Your task to perform on an android device: turn pop-ups on in chrome Image 0: 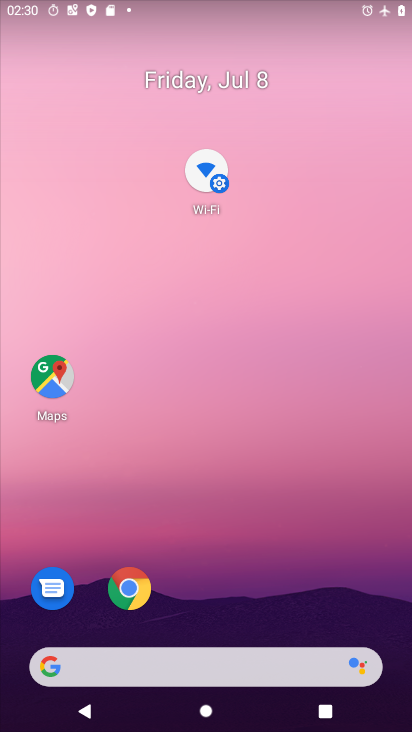
Step 0: drag from (176, 636) to (196, 86)
Your task to perform on an android device: turn pop-ups on in chrome Image 1: 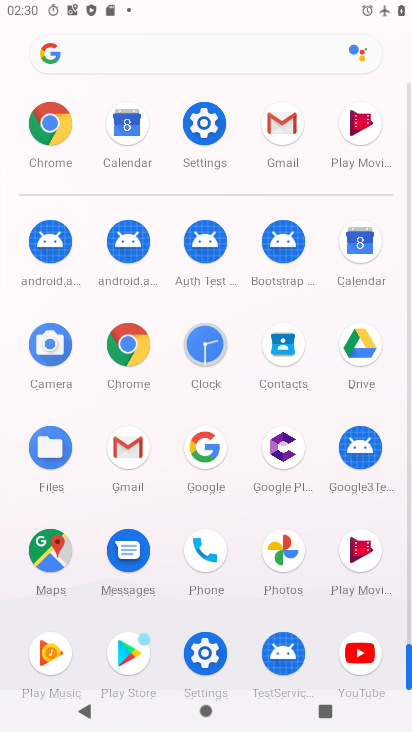
Step 1: click (137, 349)
Your task to perform on an android device: turn pop-ups on in chrome Image 2: 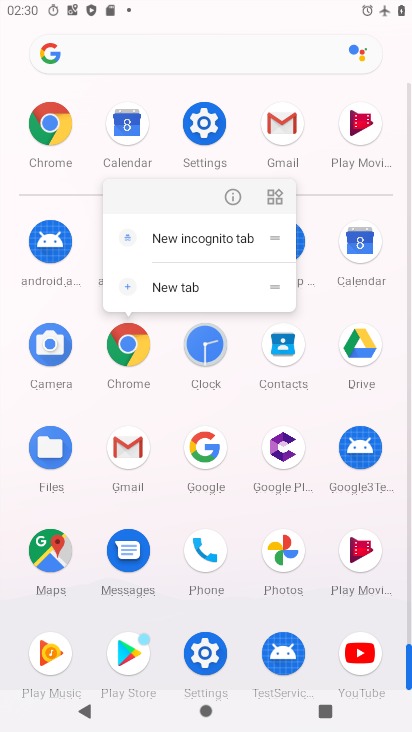
Step 2: click (240, 193)
Your task to perform on an android device: turn pop-ups on in chrome Image 3: 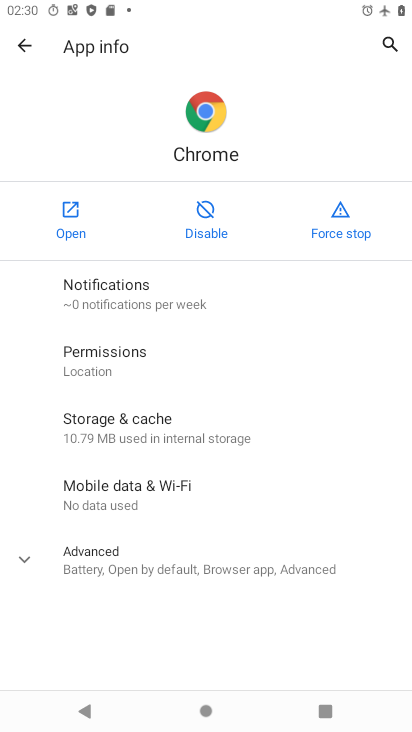
Step 3: click (79, 211)
Your task to perform on an android device: turn pop-ups on in chrome Image 4: 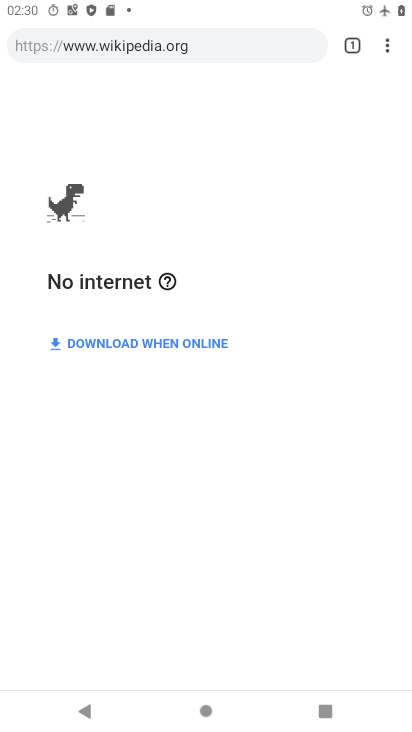
Step 4: drag from (243, 590) to (243, 312)
Your task to perform on an android device: turn pop-ups on in chrome Image 5: 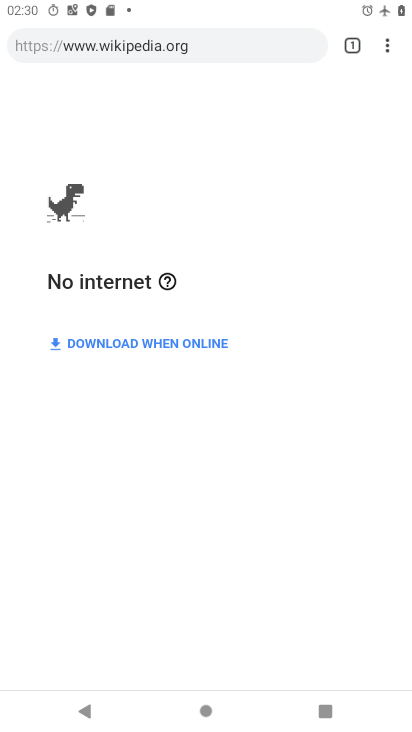
Step 5: click (384, 38)
Your task to perform on an android device: turn pop-ups on in chrome Image 6: 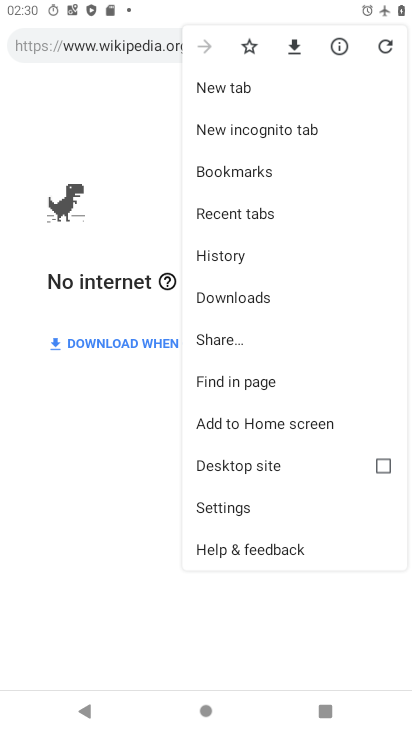
Step 6: click (227, 507)
Your task to perform on an android device: turn pop-ups on in chrome Image 7: 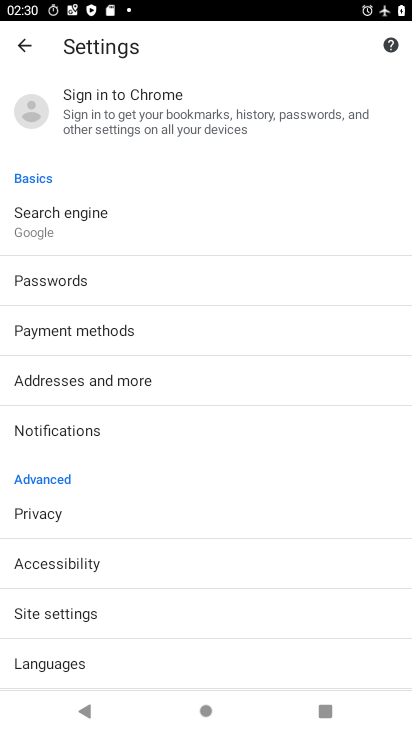
Step 7: click (78, 623)
Your task to perform on an android device: turn pop-ups on in chrome Image 8: 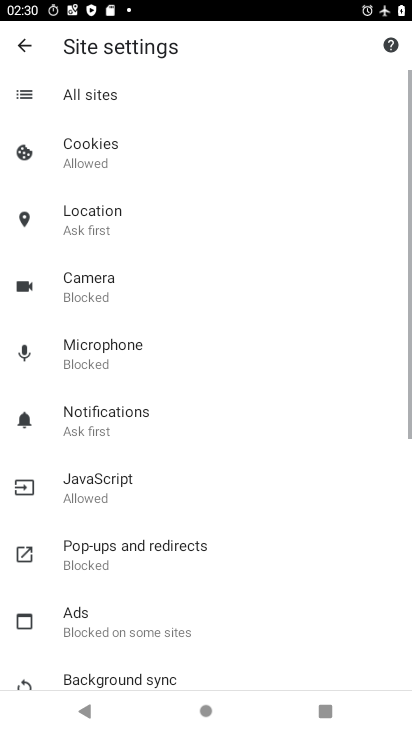
Step 8: drag from (80, 620) to (100, 399)
Your task to perform on an android device: turn pop-ups on in chrome Image 9: 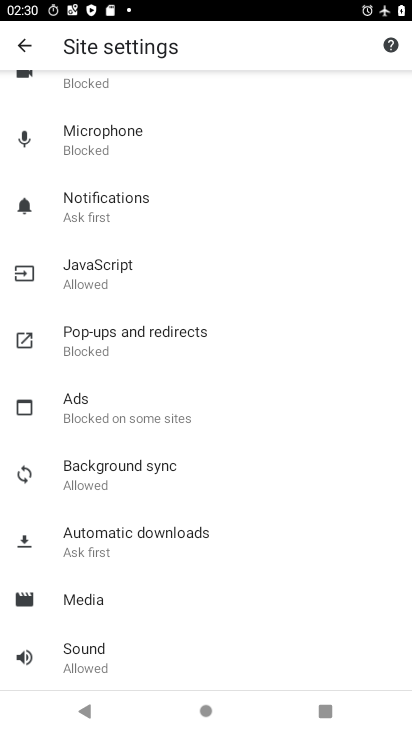
Step 9: click (177, 331)
Your task to perform on an android device: turn pop-ups on in chrome Image 10: 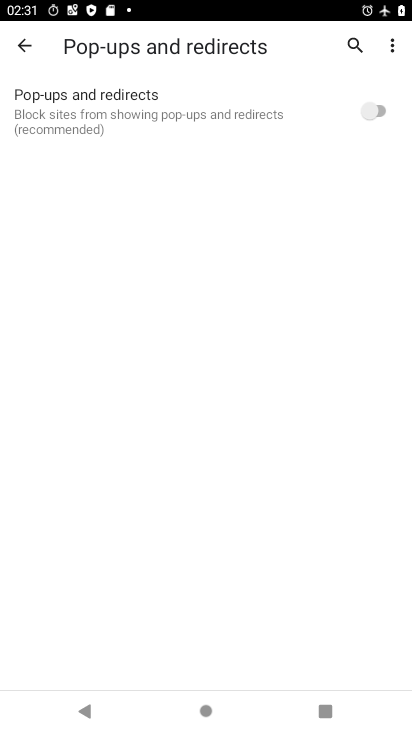
Step 10: click (327, 105)
Your task to perform on an android device: turn pop-ups on in chrome Image 11: 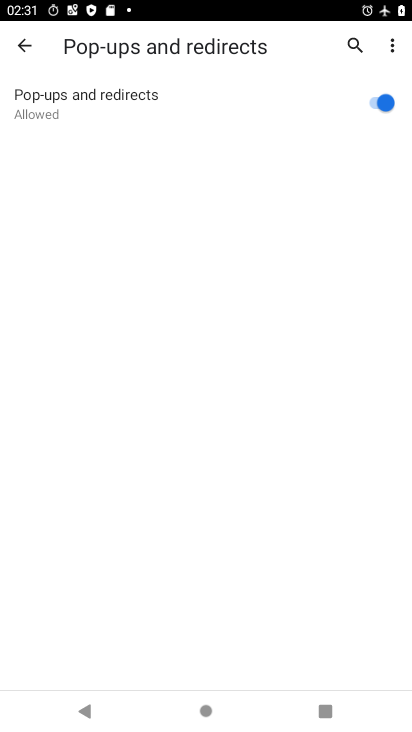
Step 11: task complete